Your task to perform on an android device: turn off translation in the chrome app Image 0: 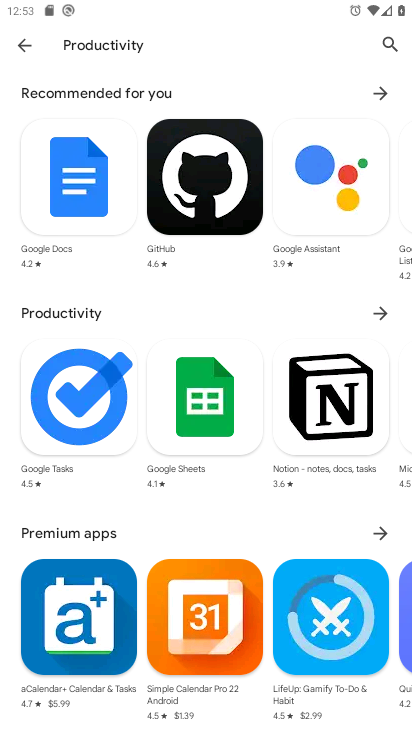
Step 0: press home button
Your task to perform on an android device: turn off translation in the chrome app Image 1: 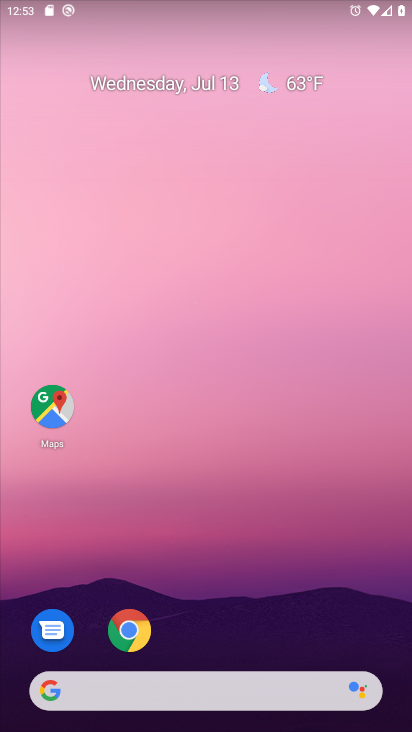
Step 1: click (126, 629)
Your task to perform on an android device: turn off translation in the chrome app Image 2: 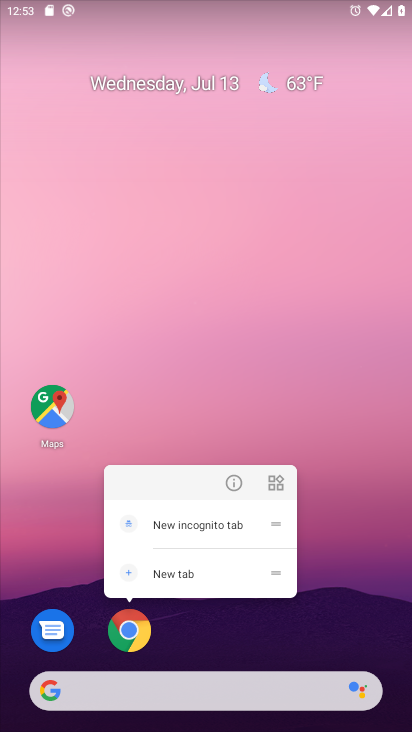
Step 2: click (136, 623)
Your task to perform on an android device: turn off translation in the chrome app Image 3: 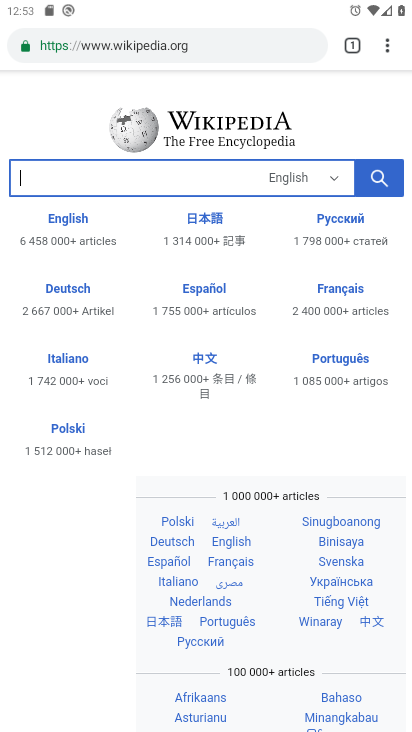
Step 3: drag from (386, 47) to (223, 556)
Your task to perform on an android device: turn off translation in the chrome app Image 4: 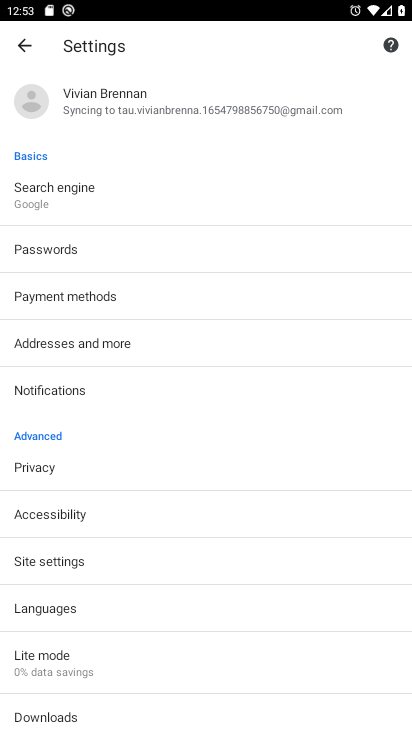
Step 4: drag from (94, 594) to (103, 485)
Your task to perform on an android device: turn off translation in the chrome app Image 5: 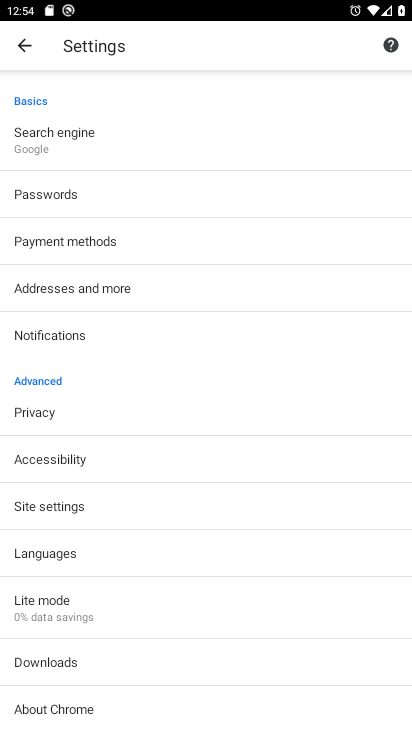
Step 5: click (98, 546)
Your task to perform on an android device: turn off translation in the chrome app Image 6: 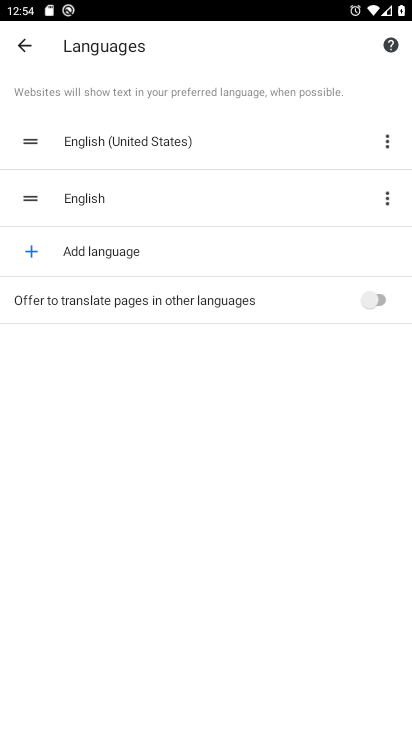
Step 6: task complete